Your task to perform on an android device: change notification settings in the gmail app Image 0: 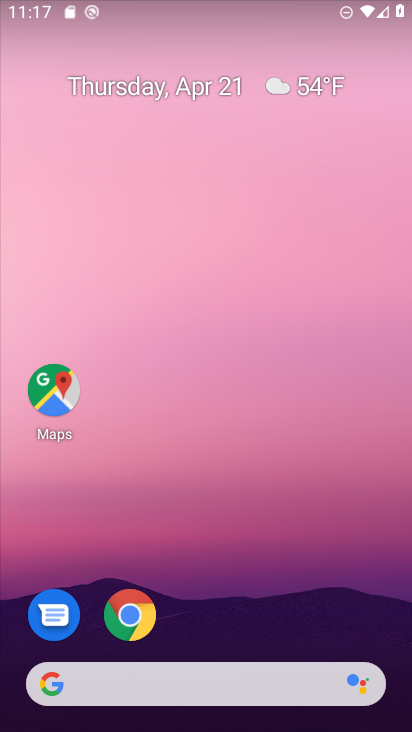
Step 0: drag from (267, 598) to (321, 63)
Your task to perform on an android device: change notification settings in the gmail app Image 1: 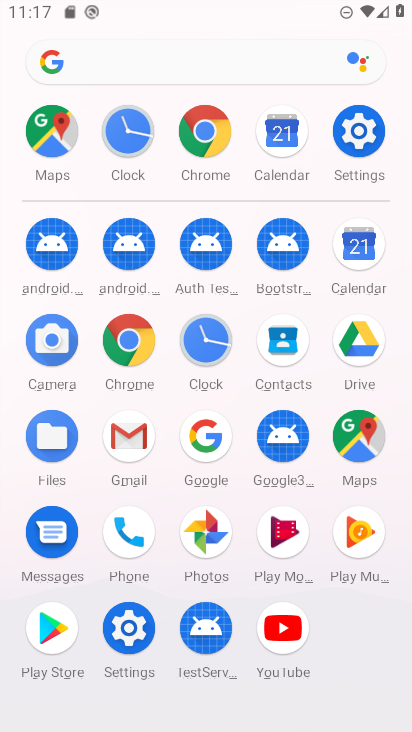
Step 1: click (124, 448)
Your task to perform on an android device: change notification settings in the gmail app Image 2: 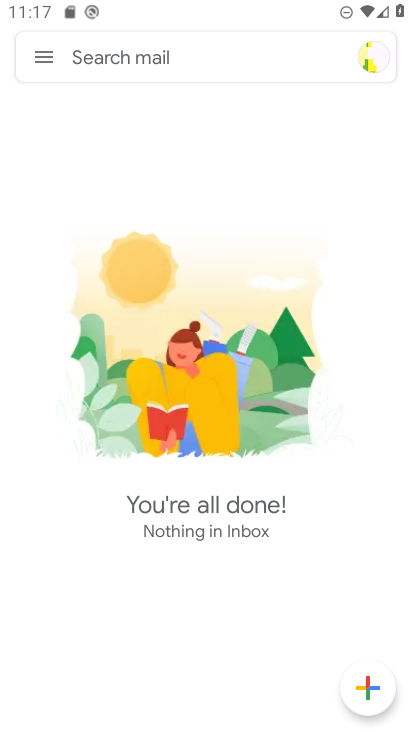
Step 2: click (41, 63)
Your task to perform on an android device: change notification settings in the gmail app Image 3: 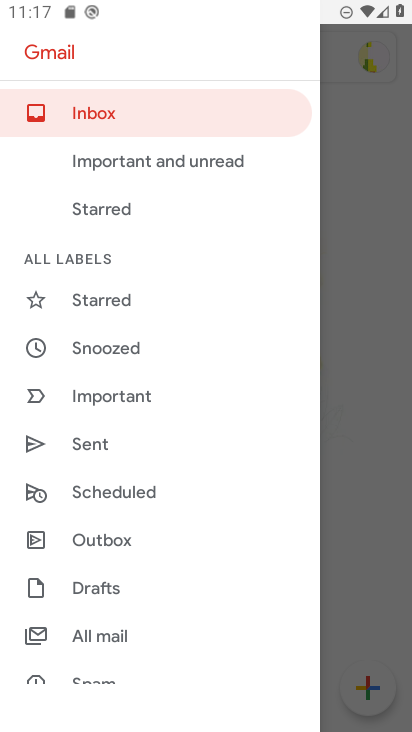
Step 3: drag from (194, 518) to (169, 416)
Your task to perform on an android device: change notification settings in the gmail app Image 4: 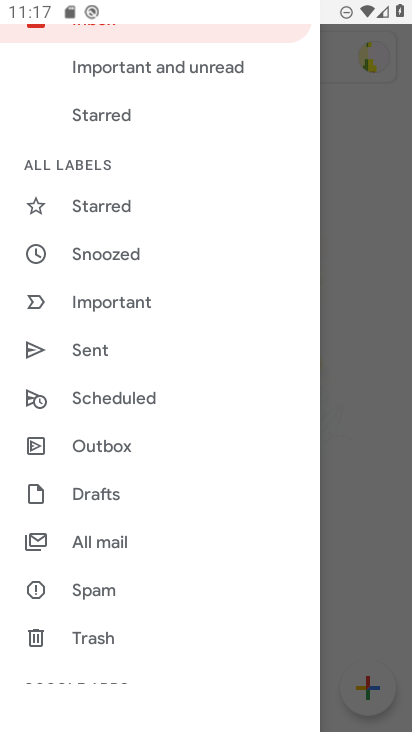
Step 4: drag from (163, 570) to (159, 477)
Your task to perform on an android device: change notification settings in the gmail app Image 5: 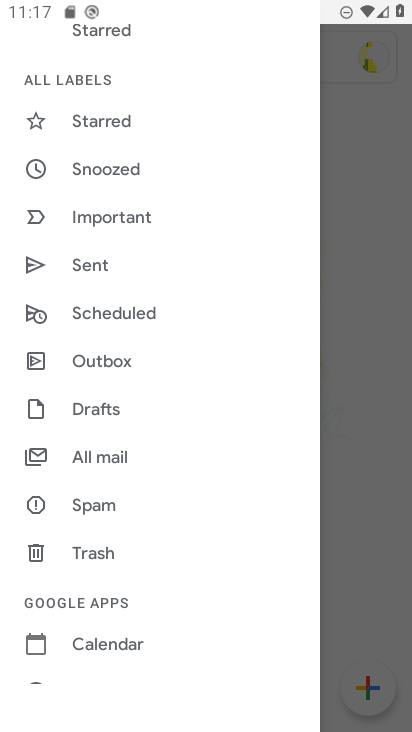
Step 5: drag from (160, 535) to (151, 427)
Your task to perform on an android device: change notification settings in the gmail app Image 6: 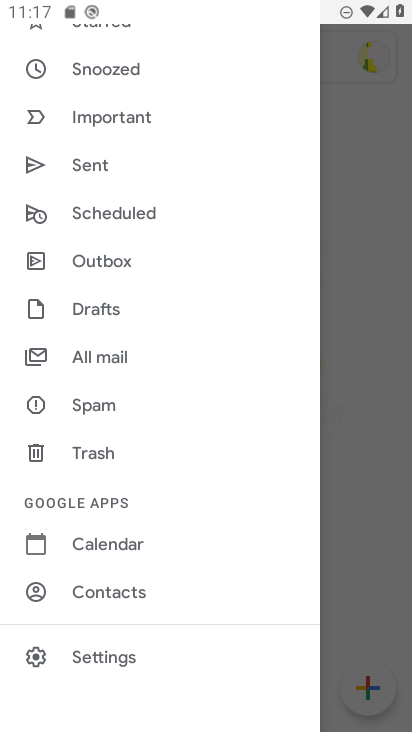
Step 6: drag from (156, 573) to (146, 421)
Your task to perform on an android device: change notification settings in the gmail app Image 7: 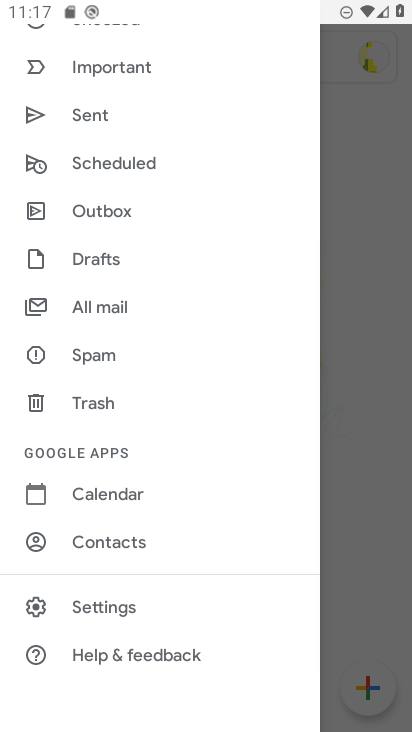
Step 7: click (135, 591)
Your task to perform on an android device: change notification settings in the gmail app Image 8: 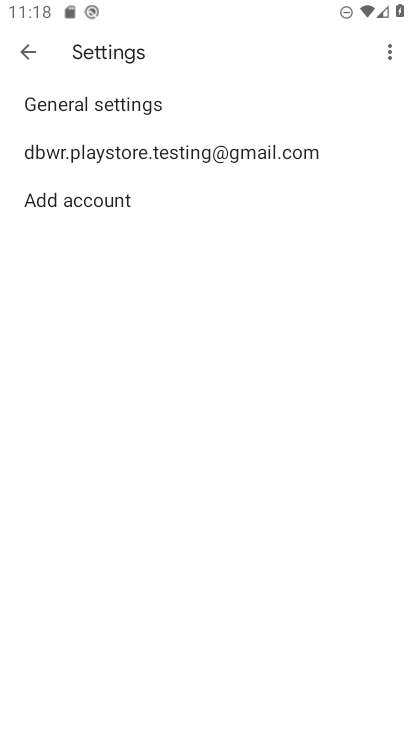
Step 8: click (204, 155)
Your task to perform on an android device: change notification settings in the gmail app Image 9: 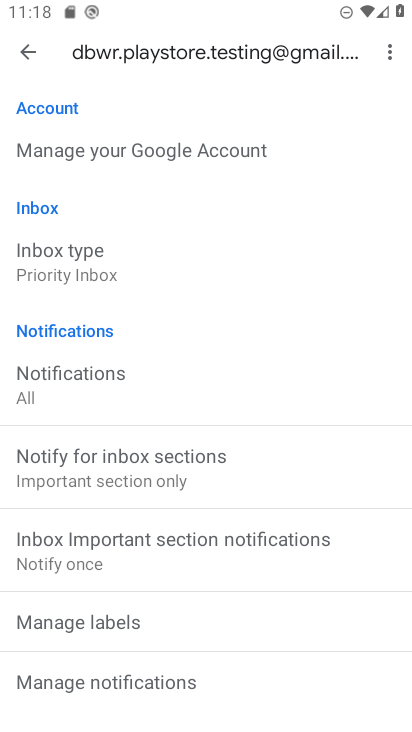
Step 9: click (169, 686)
Your task to perform on an android device: change notification settings in the gmail app Image 10: 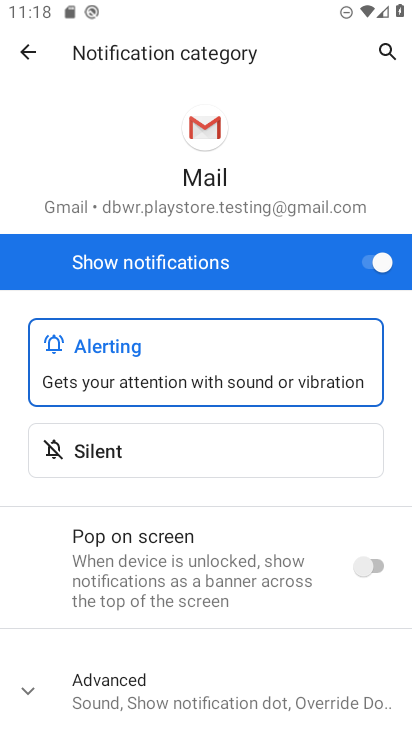
Step 10: click (368, 261)
Your task to perform on an android device: change notification settings in the gmail app Image 11: 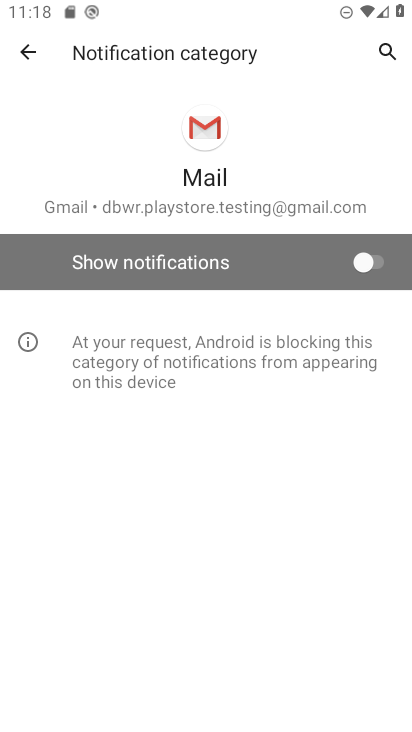
Step 11: task complete